Your task to perform on an android device: Do I have any events today? Image 0: 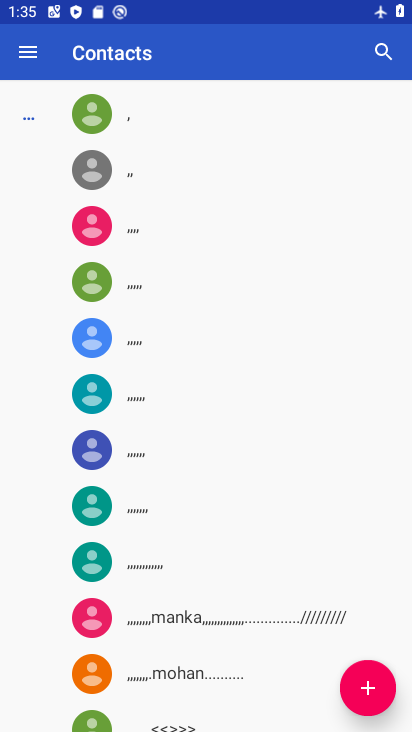
Step 0: press home button
Your task to perform on an android device: Do I have any events today? Image 1: 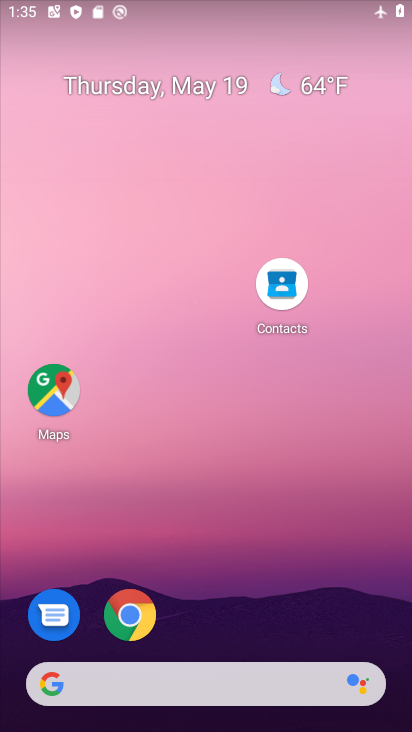
Step 1: drag from (195, 626) to (291, 109)
Your task to perform on an android device: Do I have any events today? Image 2: 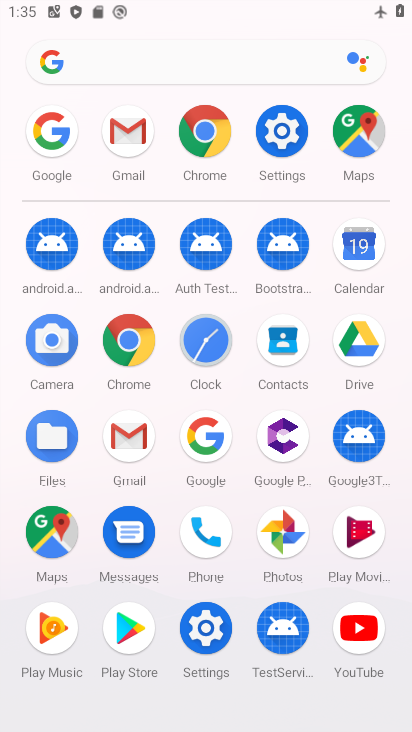
Step 2: click (364, 270)
Your task to perform on an android device: Do I have any events today? Image 3: 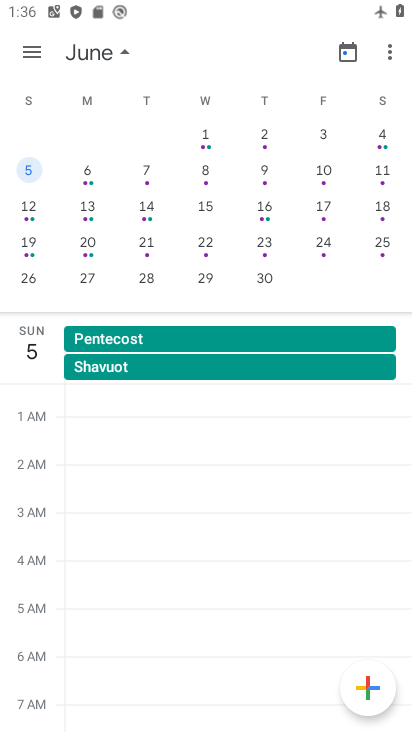
Step 3: drag from (62, 245) to (410, 330)
Your task to perform on an android device: Do I have any events today? Image 4: 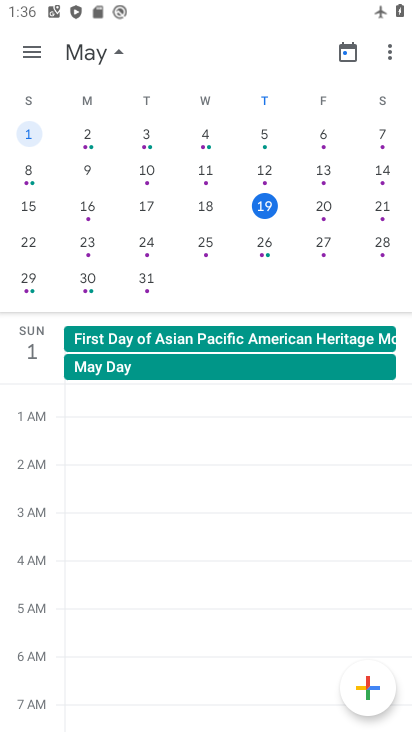
Step 4: click (261, 211)
Your task to perform on an android device: Do I have any events today? Image 5: 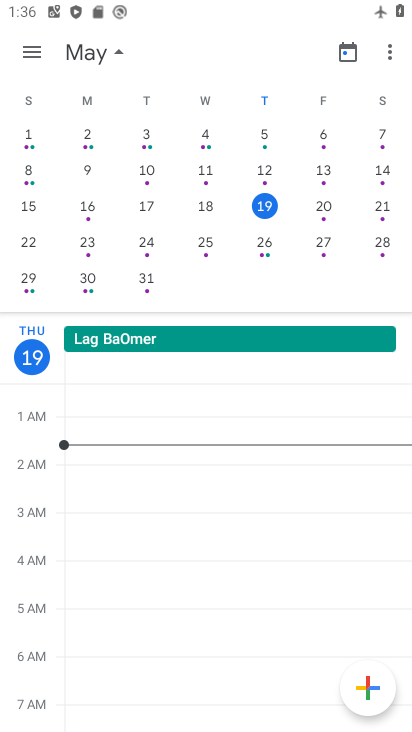
Step 5: task complete